Your task to perform on an android device: Open the stopwatch Image 0: 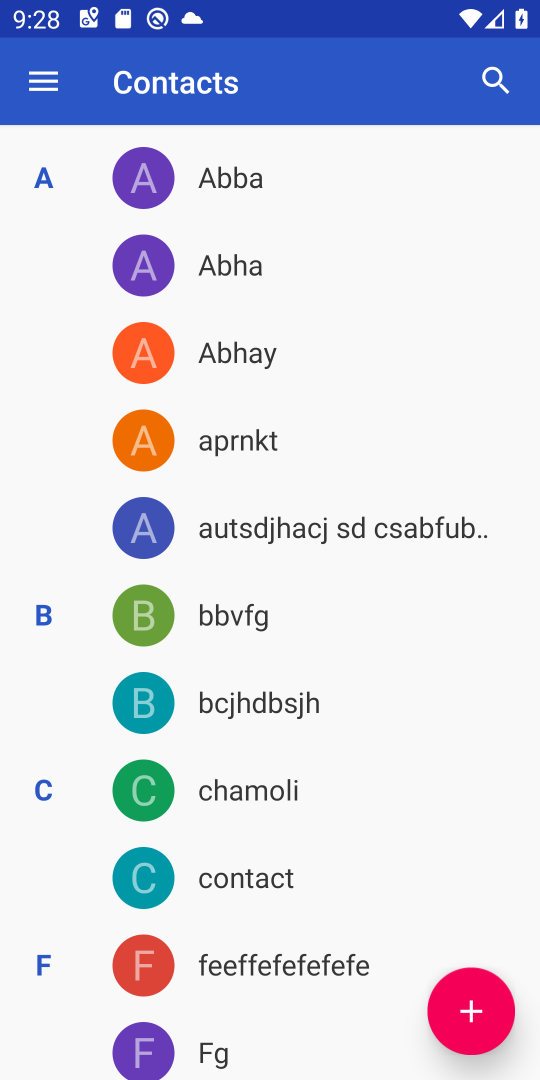
Step 0: press home button
Your task to perform on an android device: Open the stopwatch Image 1: 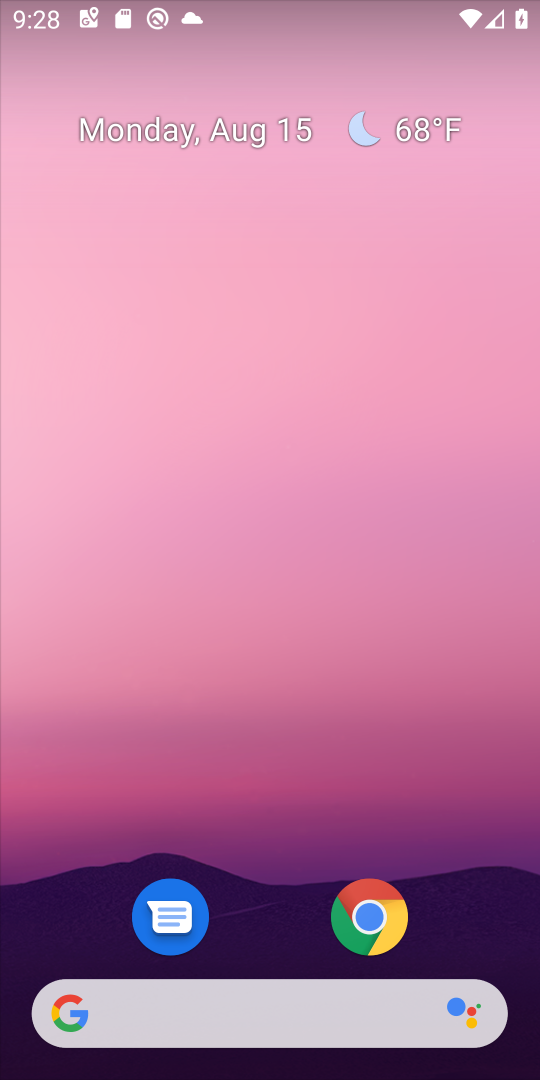
Step 1: drag from (277, 796) to (308, 0)
Your task to perform on an android device: Open the stopwatch Image 2: 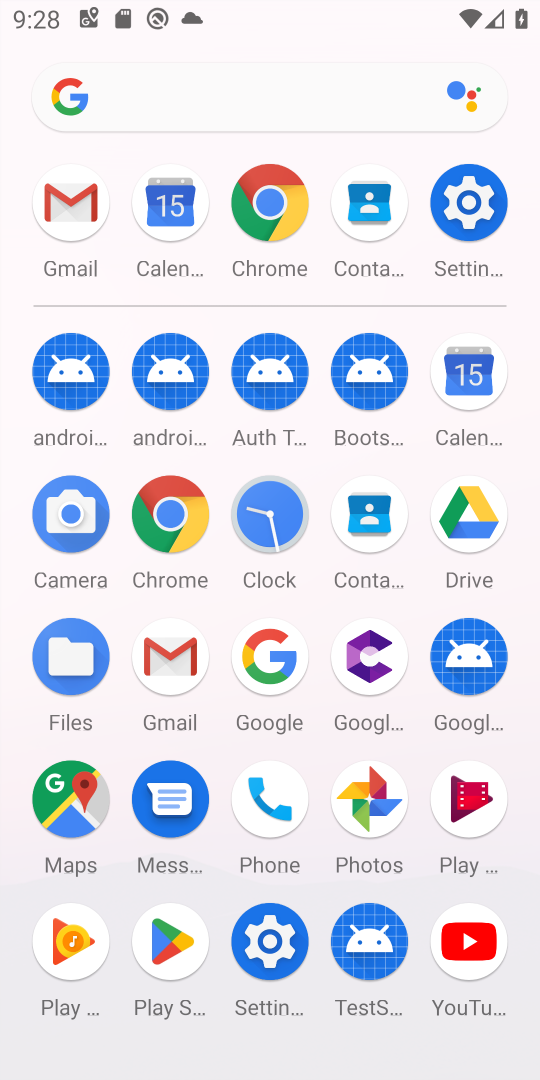
Step 2: click (268, 504)
Your task to perform on an android device: Open the stopwatch Image 3: 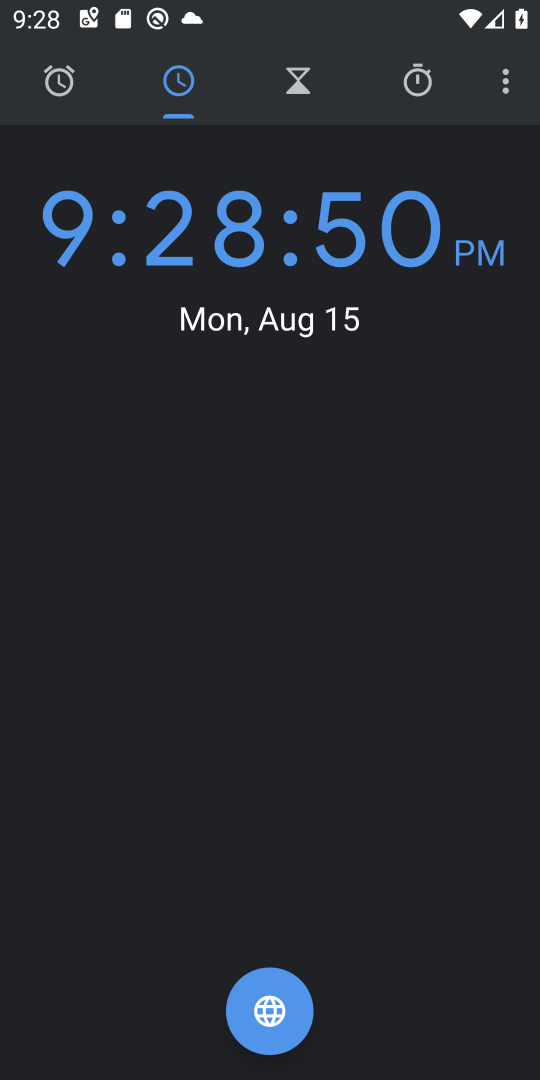
Step 3: click (428, 71)
Your task to perform on an android device: Open the stopwatch Image 4: 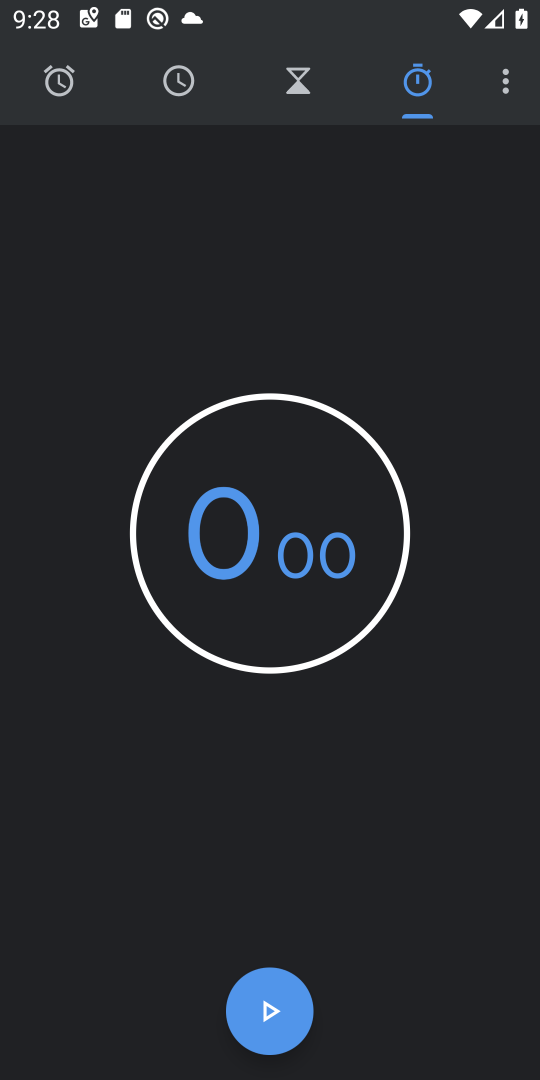
Step 4: task complete